Your task to perform on an android device: Go to Amazon Image 0: 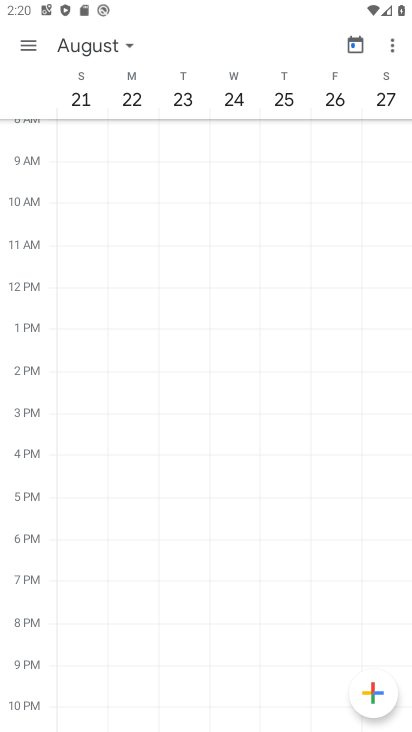
Step 0: press home button
Your task to perform on an android device: Go to Amazon Image 1: 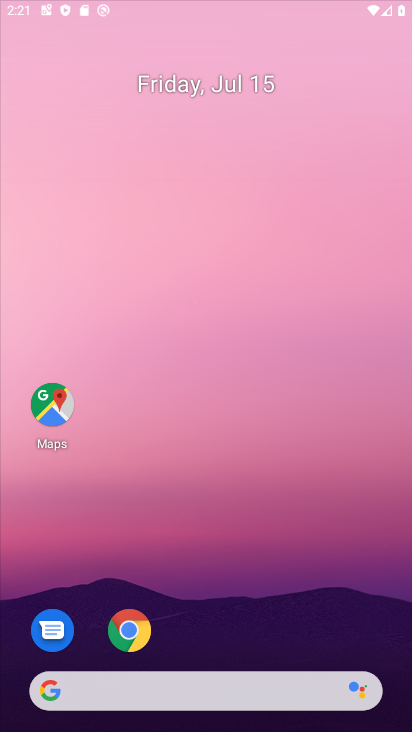
Step 1: click (44, 694)
Your task to perform on an android device: Go to Amazon Image 2: 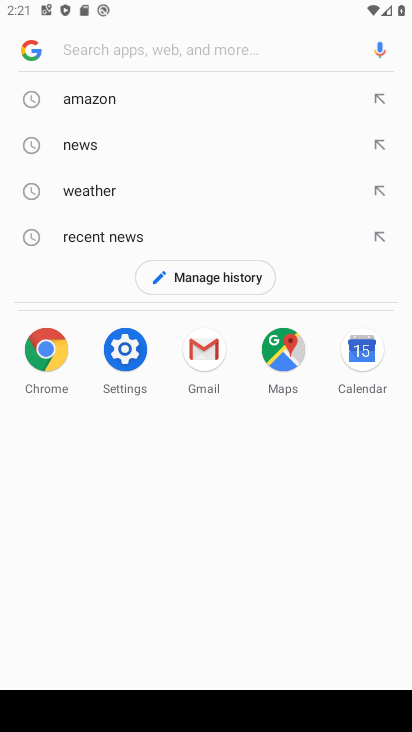
Step 2: click (82, 101)
Your task to perform on an android device: Go to Amazon Image 3: 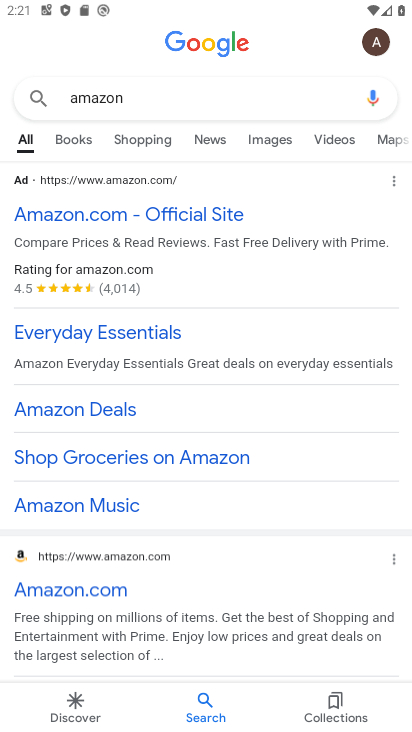
Step 3: click (70, 586)
Your task to perform on an android device: Go to Amazon Image 4: 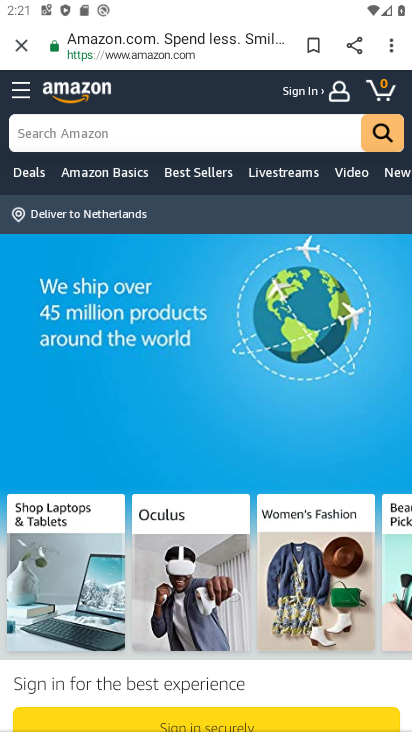
Step 4: task complete